Your task to perform on an android device: find which apps use the phone's location Image 0: 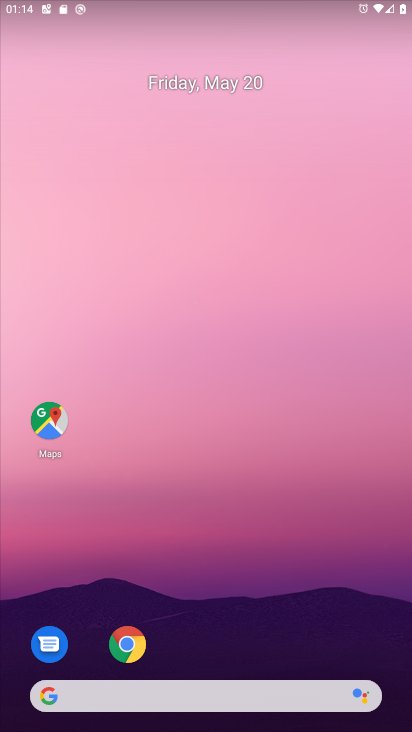
Step 0: drag from (163, 644) to (150, 352)
Your task to perform on an android device: find which apps use the phone's location Image 1: 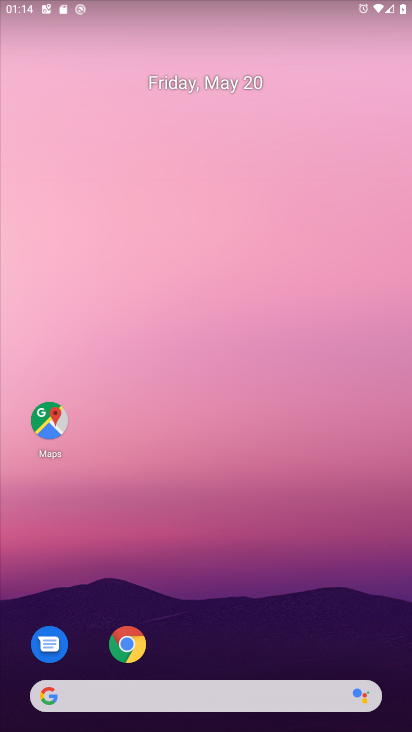
Step 1: drag from (223, 681) to (221, 208)
Your task to perform on an android device: find which apps use the phone's location Image 2: 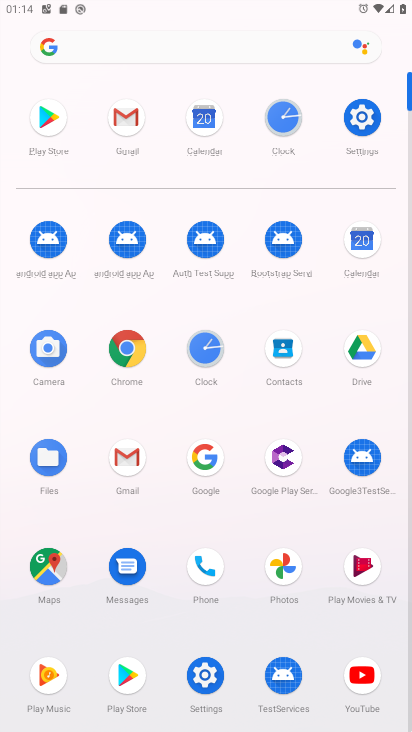
Step 2: click (352, 118)
Your task to perform on an android device: find which apps use the phone's location Image 3: 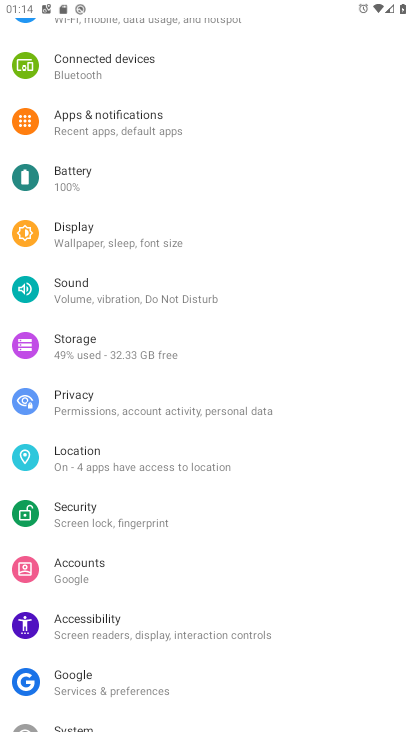
Step 3: click (96, 456)
Your task to perform on an android device: find which apps use the phone's location Image 4: 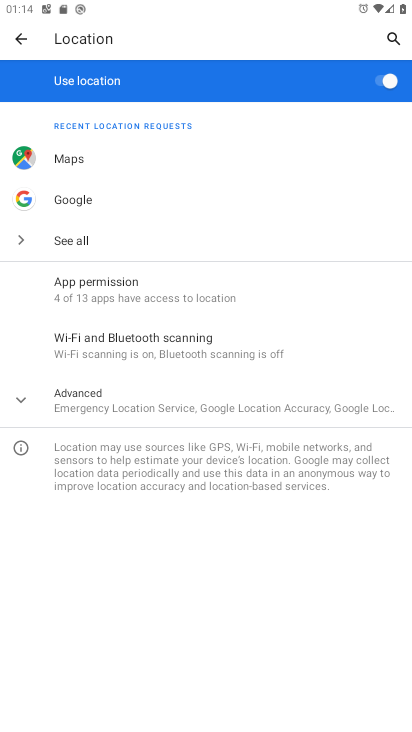
Step 4: click (97, 292)
Your task to perform on an android device: find which apps use the phone's location Image 5: 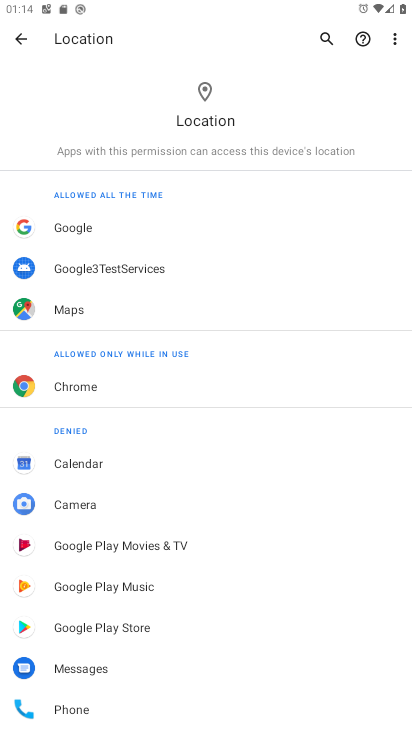
Step 5: task complete